Your task to perform on an android device: Open CNN.com Image 0: 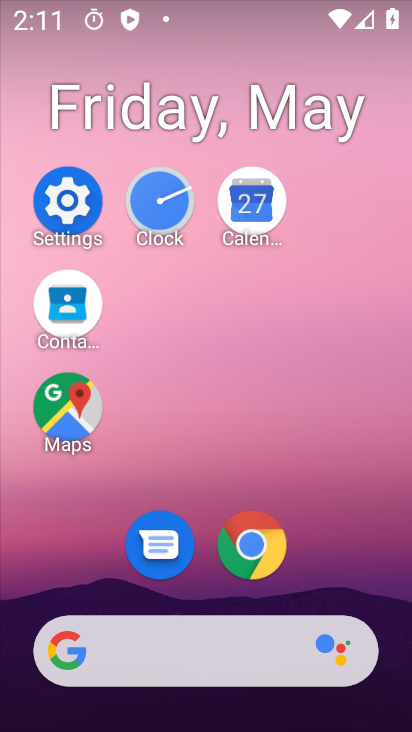
Step 0: click (254, 567)
Your task to perform on an android device: Open CNN.com Image 1: 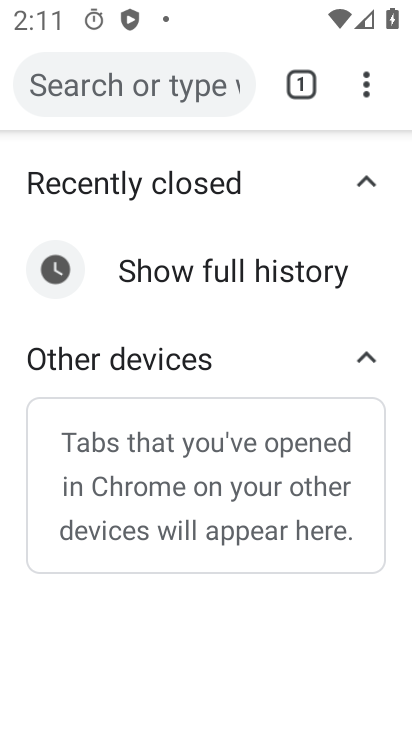
Step 1: click (299, 92)
Your task to perform on an android device: Open CNN.com Image 2: 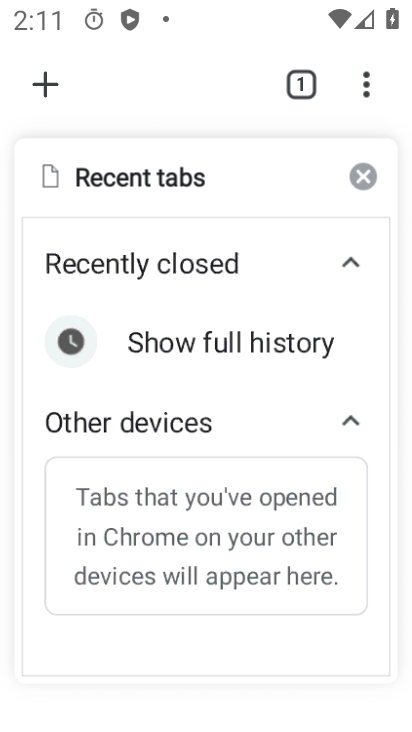
Step 2: click (54, 90)
Your task to perform on an android device: Open CNN.com Image 3: 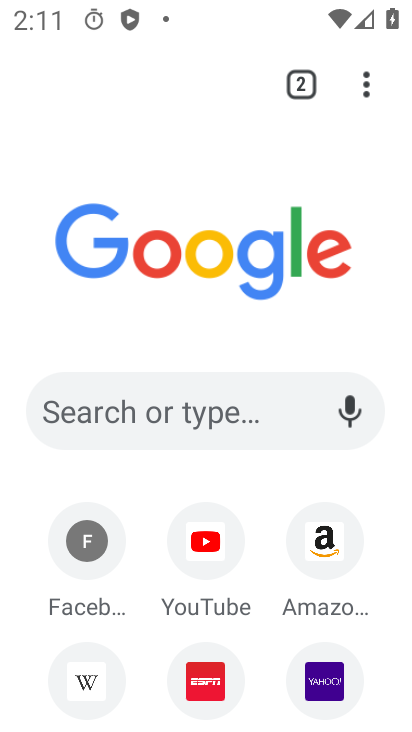
Step 3: click (217, 401)
Your task to perform on an android device: Open CNN.com Image 4: 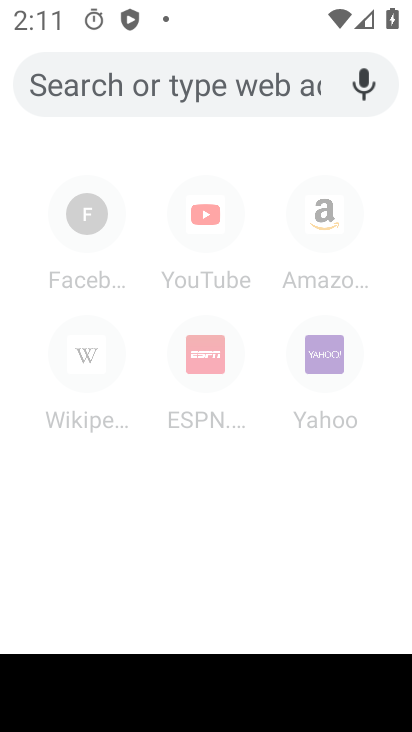
Step 4: type "cnn"
Your task to perform on an android device: Open CNN.com Image 5: 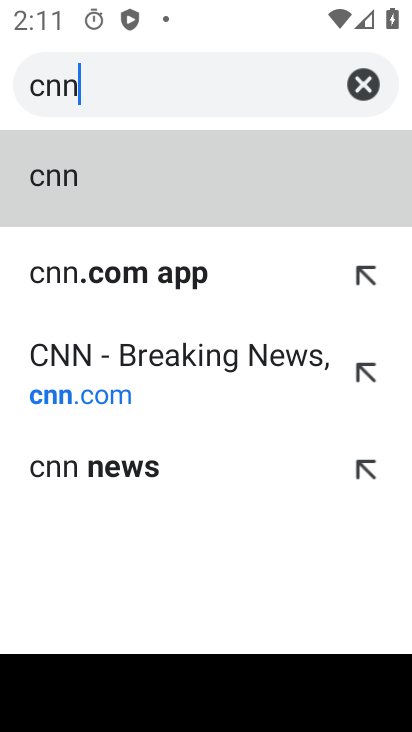
Step 5: click (99, 375)
Your task to perform on an android device: Open CNN.com Image 6: 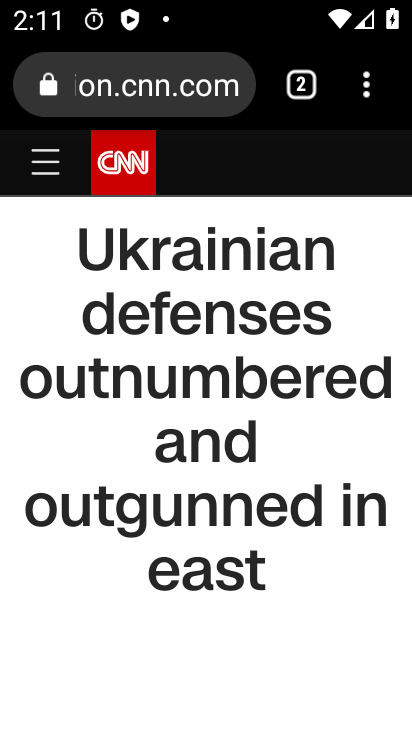
Step 6: task complete